Your task to perform on an android device: refresh tabs in the chrome app Image 0: 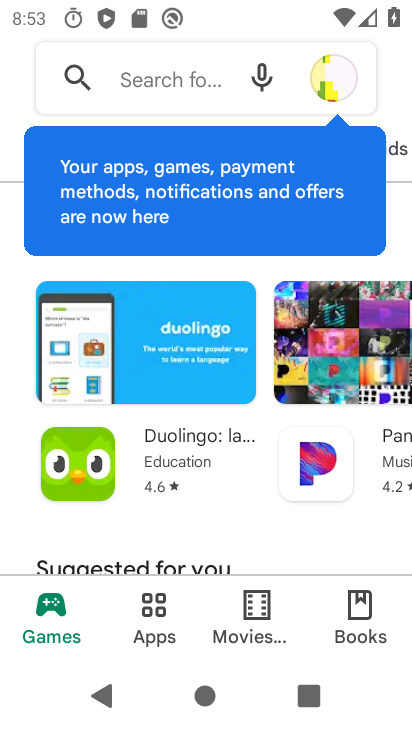
Step 0: press home button
Your task to perform on an android device: refresh tabs in the chrome app Image 1: 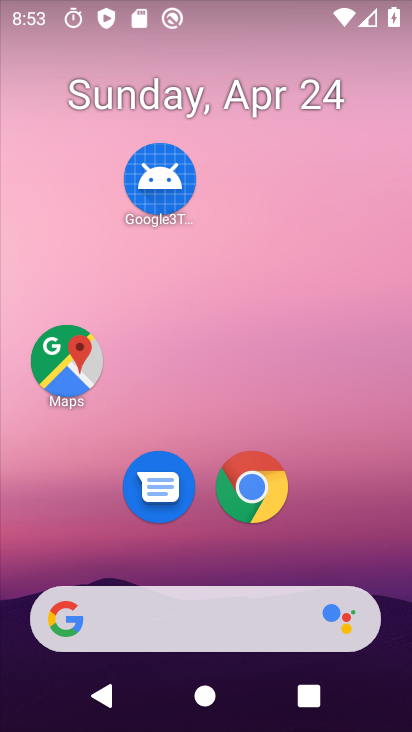
Step 1: click (236, 500)
Your task to perform on an android device: refresh tabs in the chrome app Image 2: 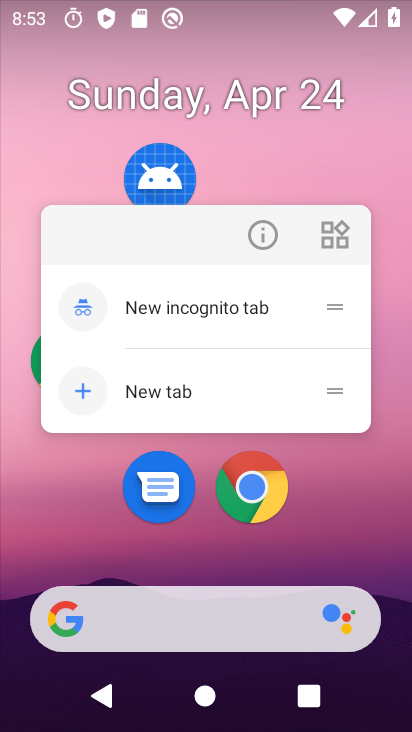
Step 2: click (260, 492)
Your task to perform on an android device: refresh tabs in the chrome app Image 3: 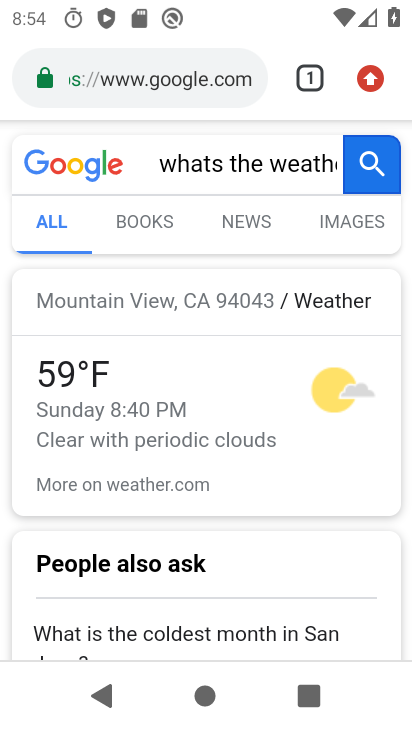
Step 3: click (369, 78)
Your task to perform on an android device: refresh tabs in the chrome app Image 4: 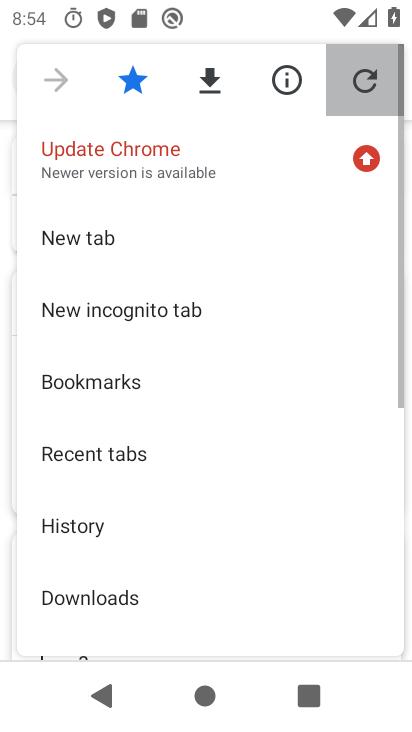
Step 4: click (369, 78)
Your task to perform on an android device: refresh tabs in the chrome app Image 5: 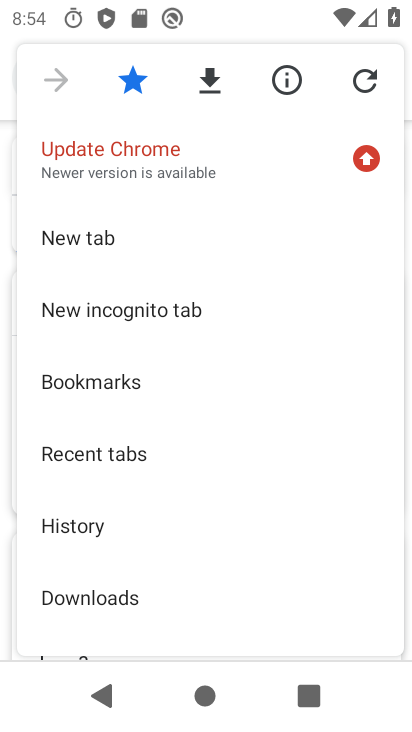
Step 5: click (369, 78)
Your task to perform on an android device: refresh tabs in the chrome app Image 6: 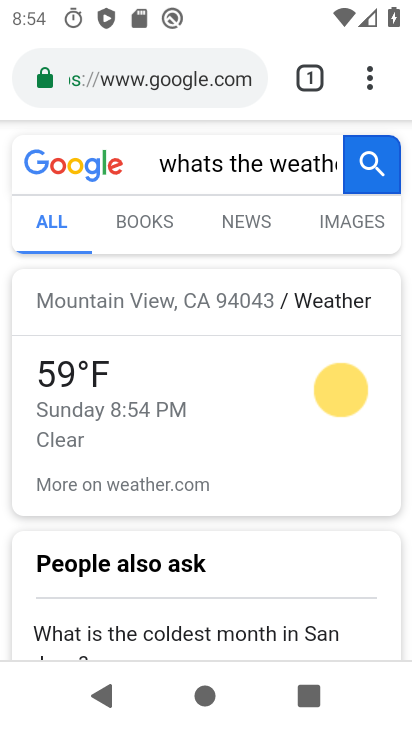
Step 6: task complete